Your task to perform on an android device: Do I have any events this weekend? Image 0: 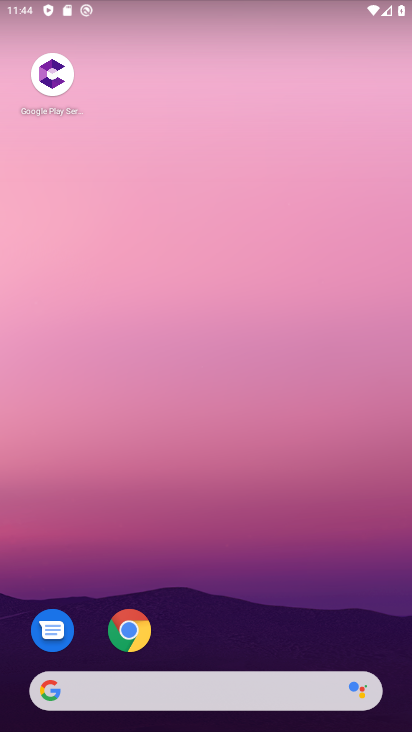
Step 0: drag from (154, 618) to (247, 77)
Your task to perform on an android device: Do I have any events this weekend? Image 1: 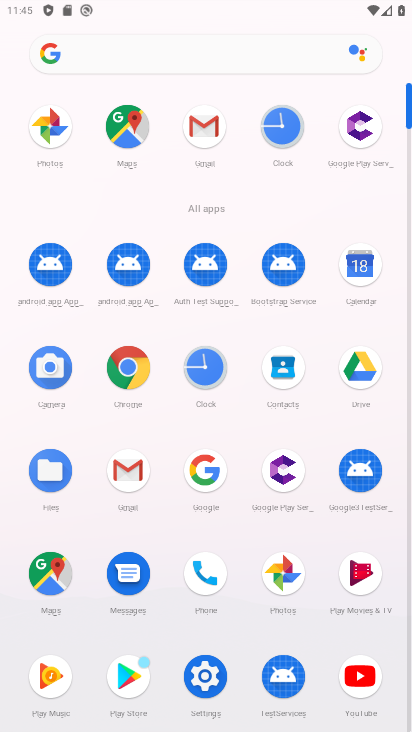
Step 1: click (363, 264)
Your task to perform on an android device: Do I have any events this weekend? Image 2: 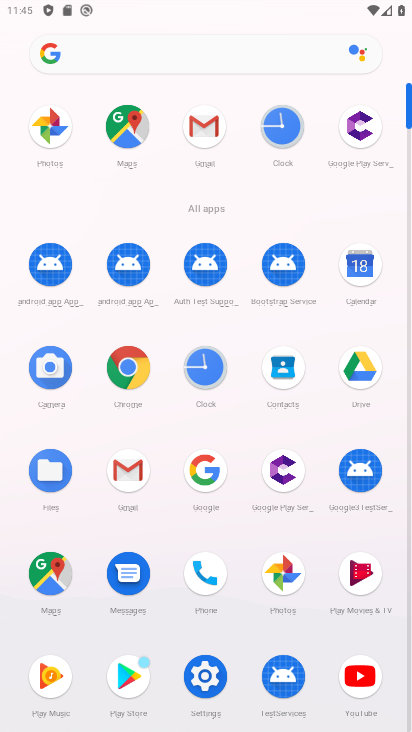
Step 2: click (363, 264)
Your task to perform on an android device: Do I have any events this weekend? Image 3: 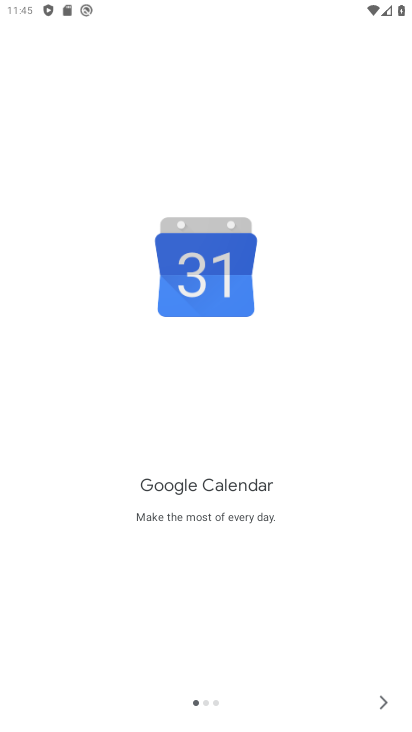
Step 3: click (388, 711)
Your task to perform on an android device: Do I have any events this weekend? Image 4: 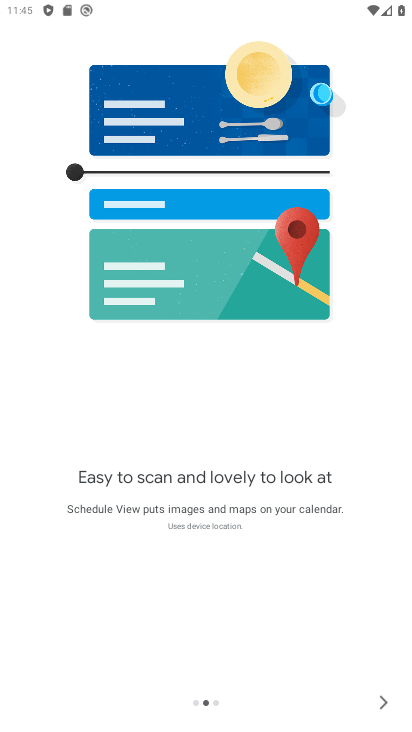
Step 4: click (383, 687)
Your task to perform on an android device: Do I have any events this weekend? Image 5: 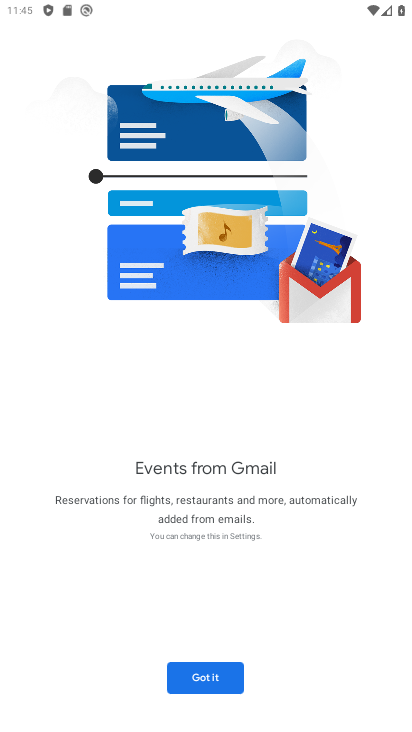
Step 5: click (194, 689)
Your task to perform on an android device: Do I have any events this weekend? Image 6: 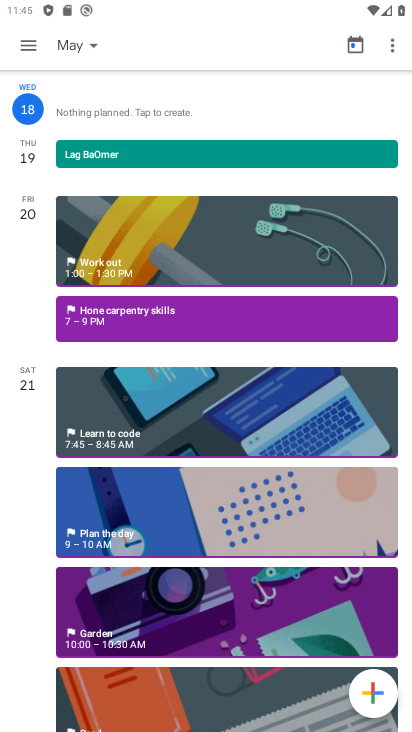
Step 6: click (78, 31)
Your task to perform on an android device: Do I have any events this weekend? Image 7: 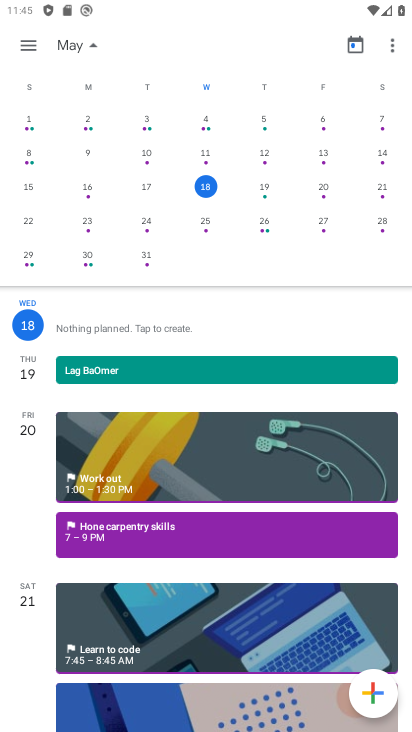
Step 7: click (378, 188)
Your task to perform on an android device: Do I have any events this weekend? Image 8: 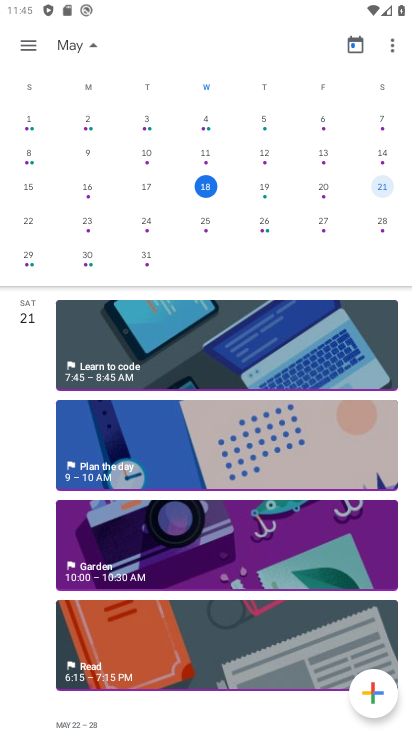
Step 8: task complete